Your task to perform on an android device: move a message to another label in the gmail app Image 0: 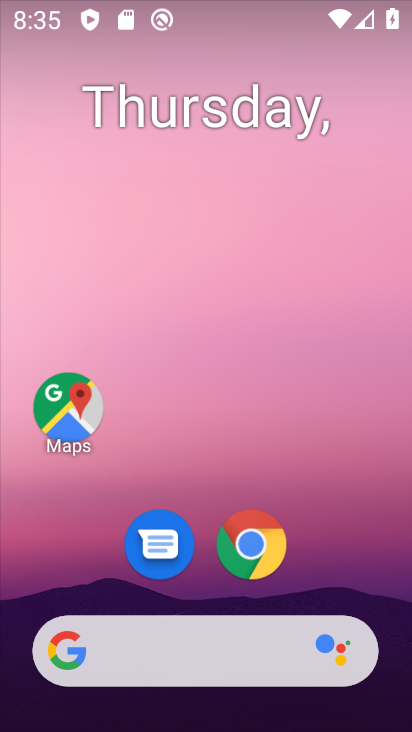
Step 0: click (260, 189)
Your task to perform on an android device: move a message to another label in the gmail app Image 1: 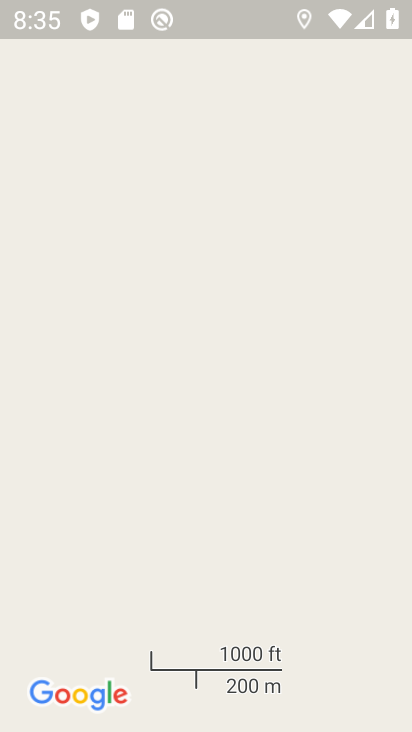
Step 1: press home button
Your task to perform on an android device: move a message to another label in the gmail app Image 2: 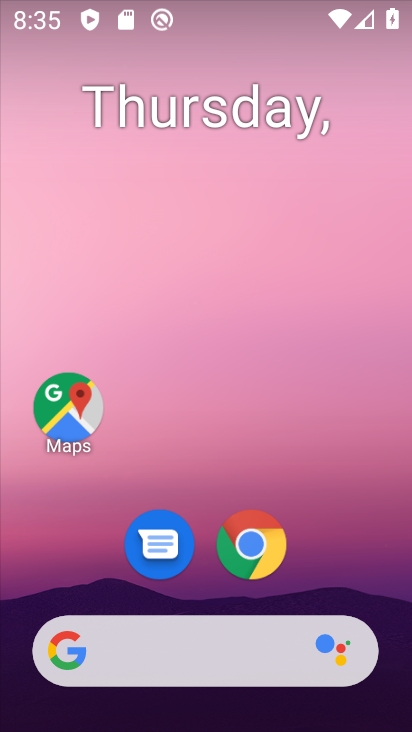
Step 2: drag from (245, 718) to (234, 170)
Your task to perform on an android device: move a message to another label in the gmail app Image 3: 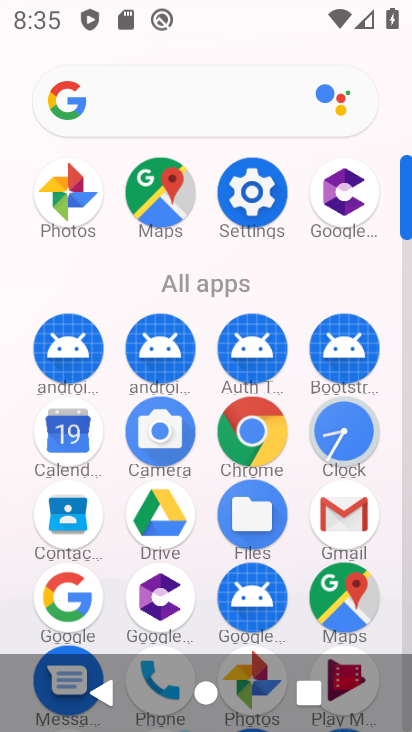
Step 3: click (54, 524)
Your task to perform on an android device: move a message to another label in the gmail app Image 4: 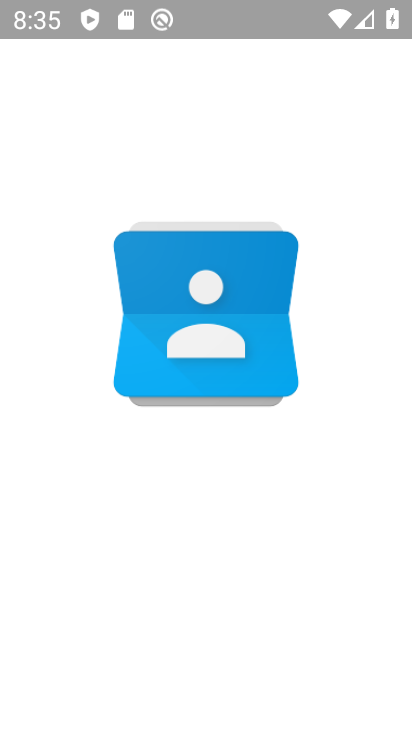
Step 4: press home button
Your task to perform on an android device: move a message to another label in the gmail app Image 5: 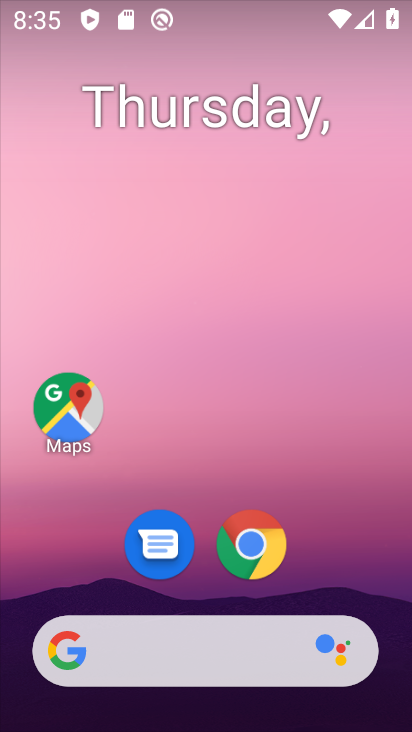
Step 5: drag from (211, 716) to (264, 273)
Your task to perform on an android device: move a message to another label in the gmail app Image 6: 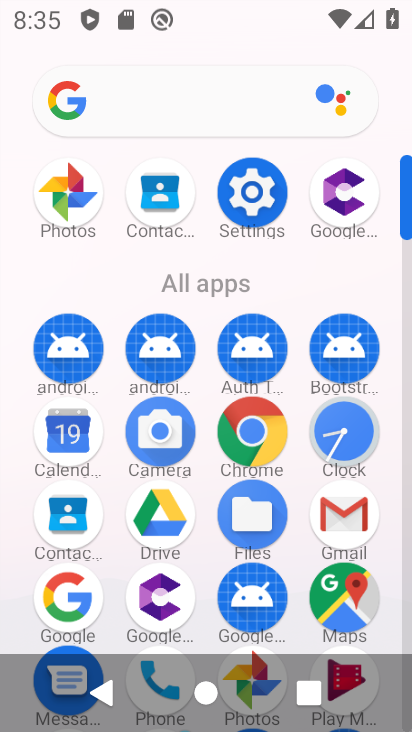
Step 6: click (350, 525)
Your task to perform on an android device: move a message to another label in the gmail app Image 7: 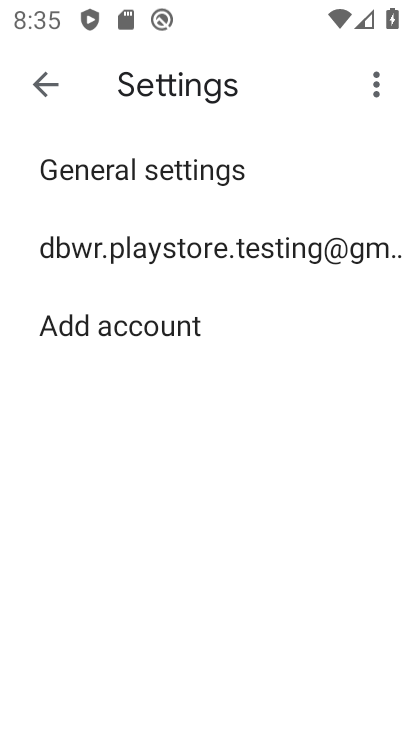
Step 7: click (40, 64)
Your task to perform on an android device: move a message to another label in the gmail app Image 8: 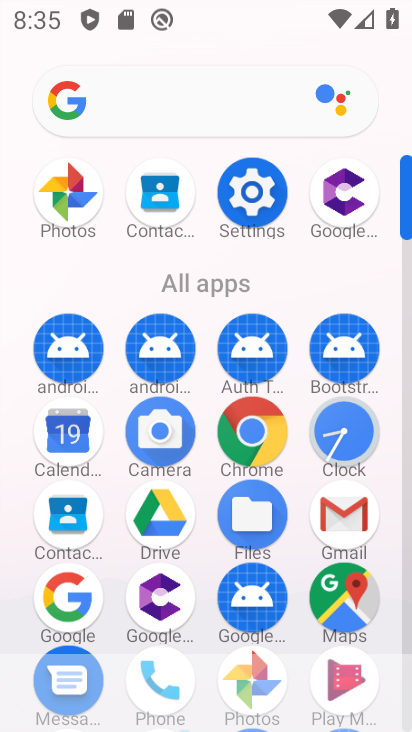
Step 8: click (355, 512)
Your task to perform on an android device: move a message to another label in the gmail app Image 9: 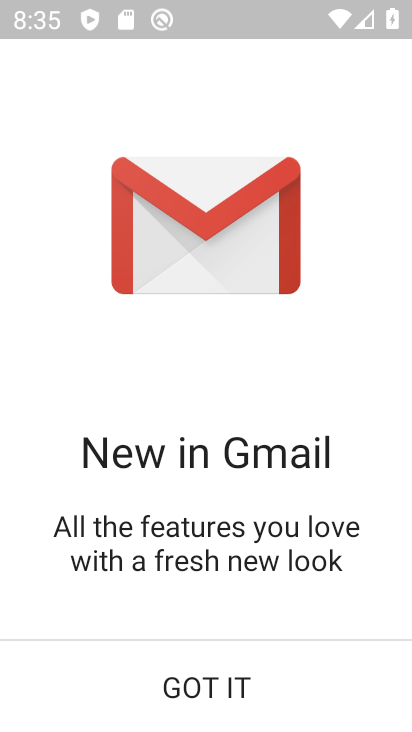
Step 9: click (241, 672)
Your task to perform on an android device: move a message to another label in the gmail app Image 10: 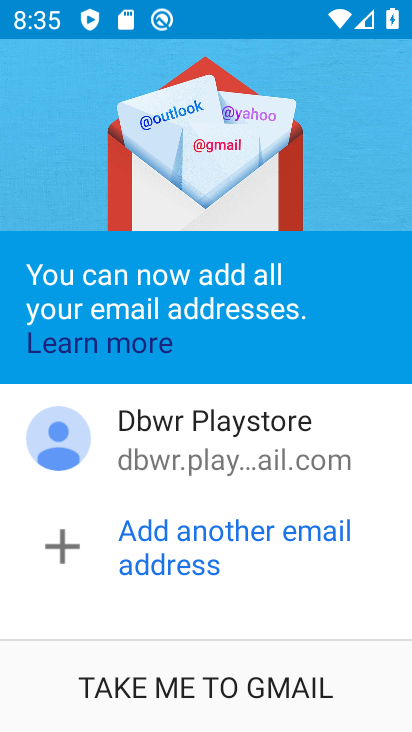
Step 10: click (241, 672)
Your task to perform on an android device: move a message to another label in the gmail app Image 11: 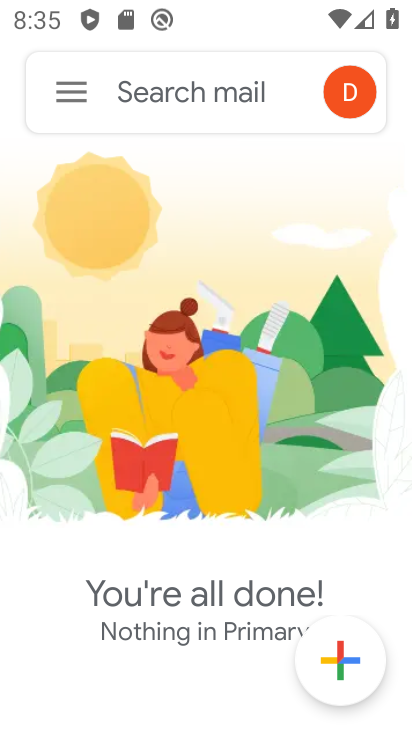
Step 11: task complete